Your task to perform on an android device: Open Chrome and go to the settings page Image 0: 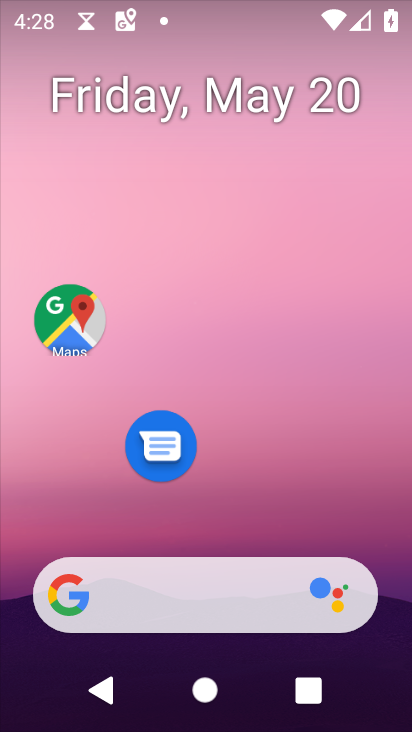
Step 0: drag from (191, 508) to (186, 13)
Your task to perform on an android device: Open Chrome and go to the settings page Image 1: 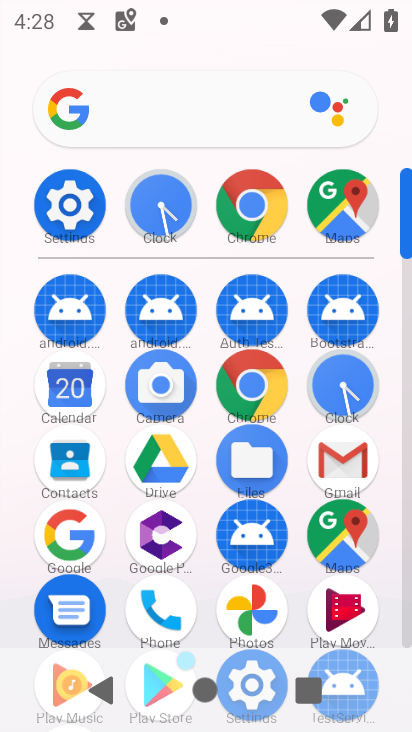
Step 1: click (246, 226)
Your task to perform on an android device: Open Chrome and go to the settings page Image 2: 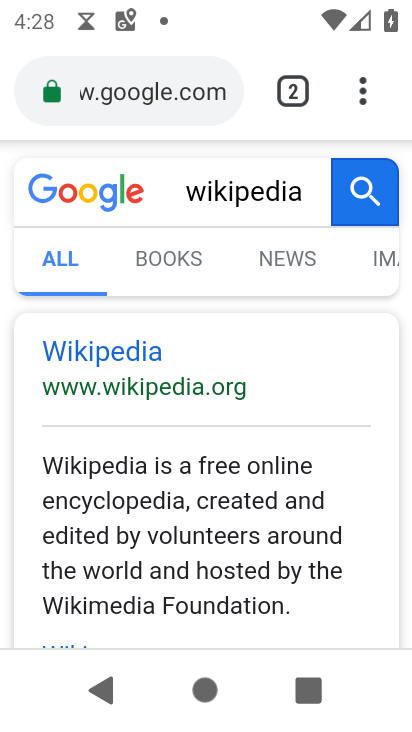
Step 2: click (368, 99)
Your task to perform on an android device: Open Chrome and go to the settings page Image 3: 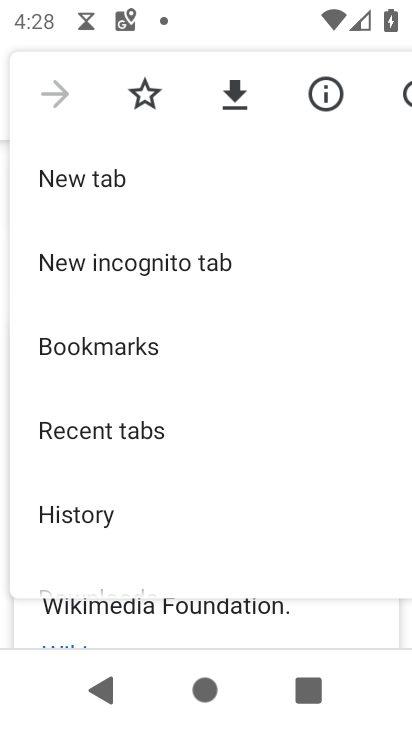
Step 3: drag from (117, 502) to (162, 20)
Your task to perform on an android device: Open Chrome and go to the settings page Image 4: 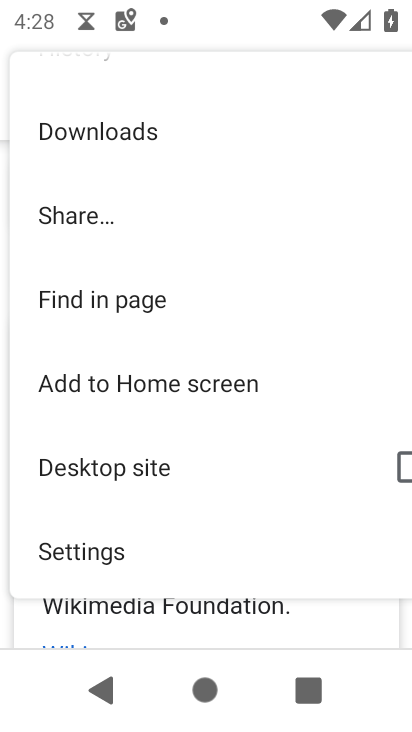
Step 4: drag from (96, 510) to (116, 379)
Your task to perform on an android device: Open Chrome and go to the settings page Image 5: 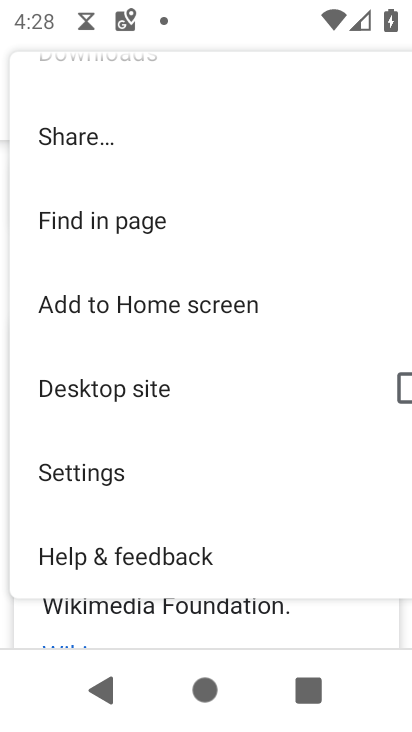
Step 5: click (69, 491)
Your task to perform on an android device: Open Chrome and go to the settings page Image 6: 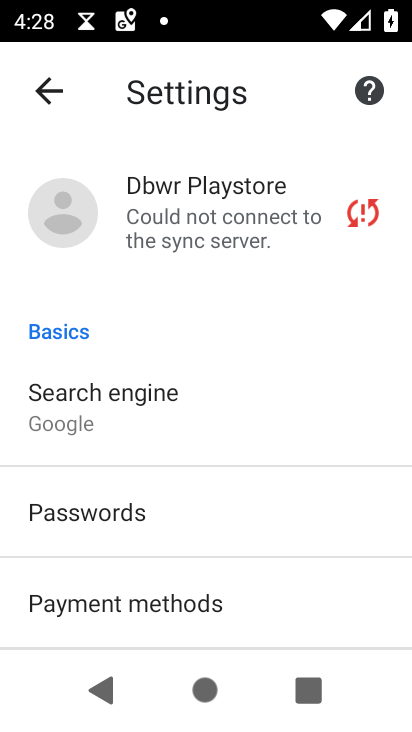
Step 6: task complete